Your task to perform on an android device: What's the US dollar exchange rate against the Euro? Image 0: 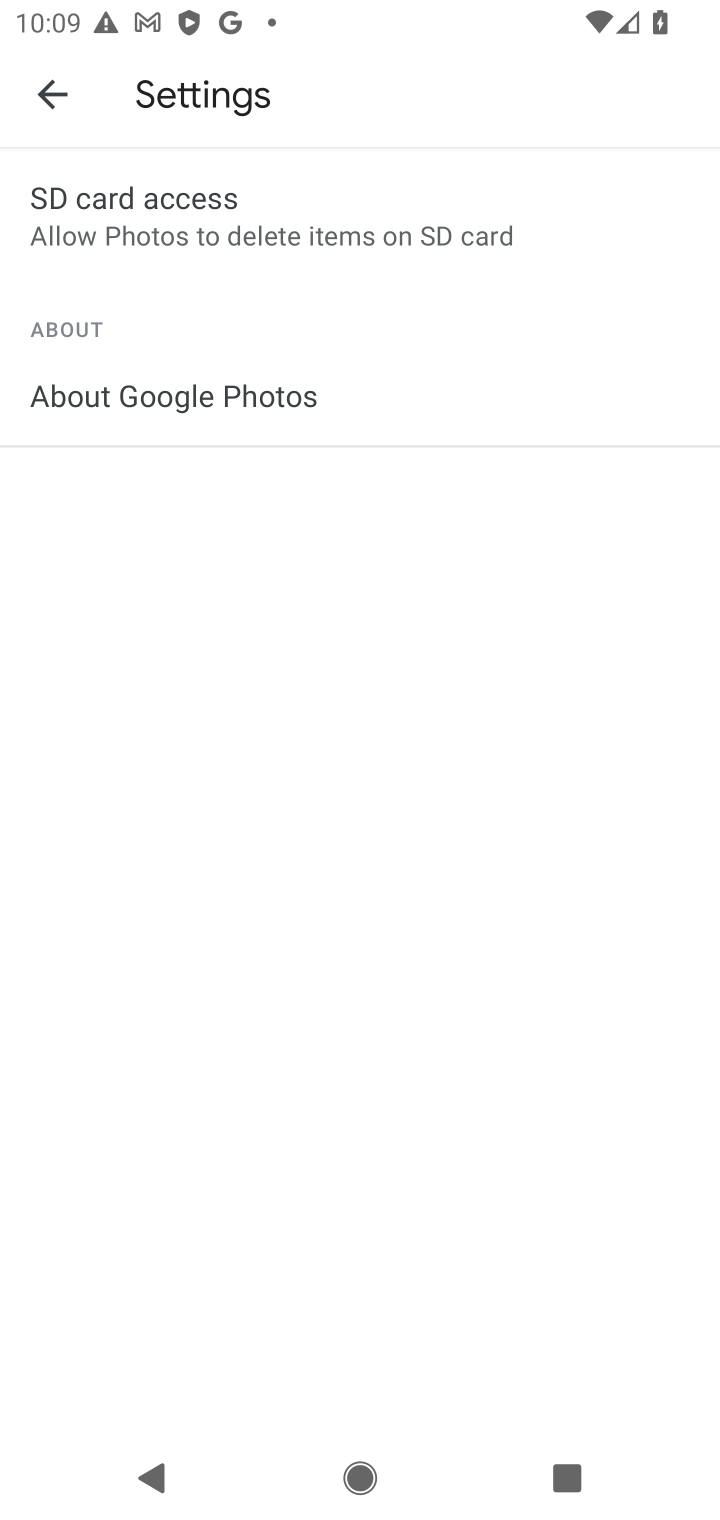
Step 0: press home button
Your task to perform on an android device: What's the US dollar exchange rate against the Euro? Image 1: 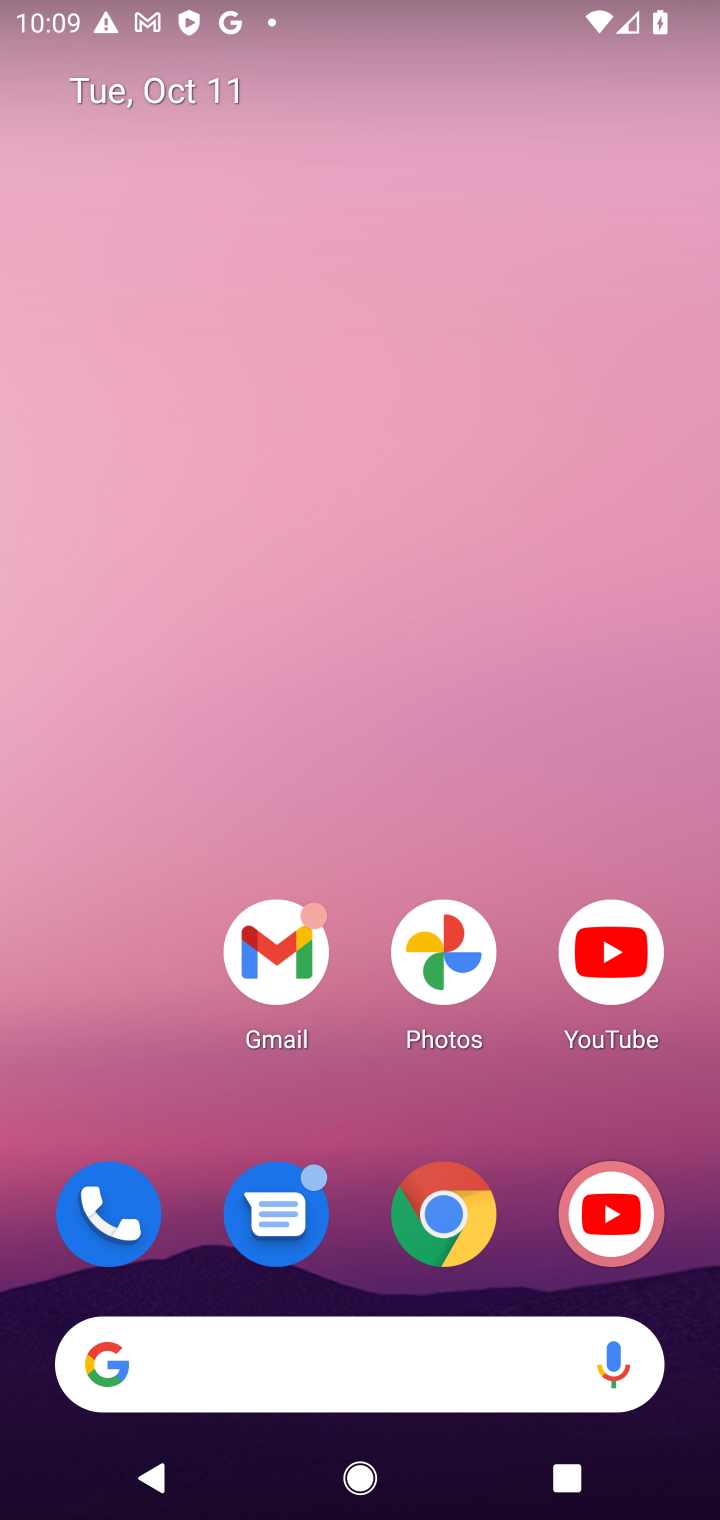
Step 1: drag from (407, 174) to (420, 88)
Your task to perform on an android device: What's the US dollar exchange rate against the Euro? Image 2: 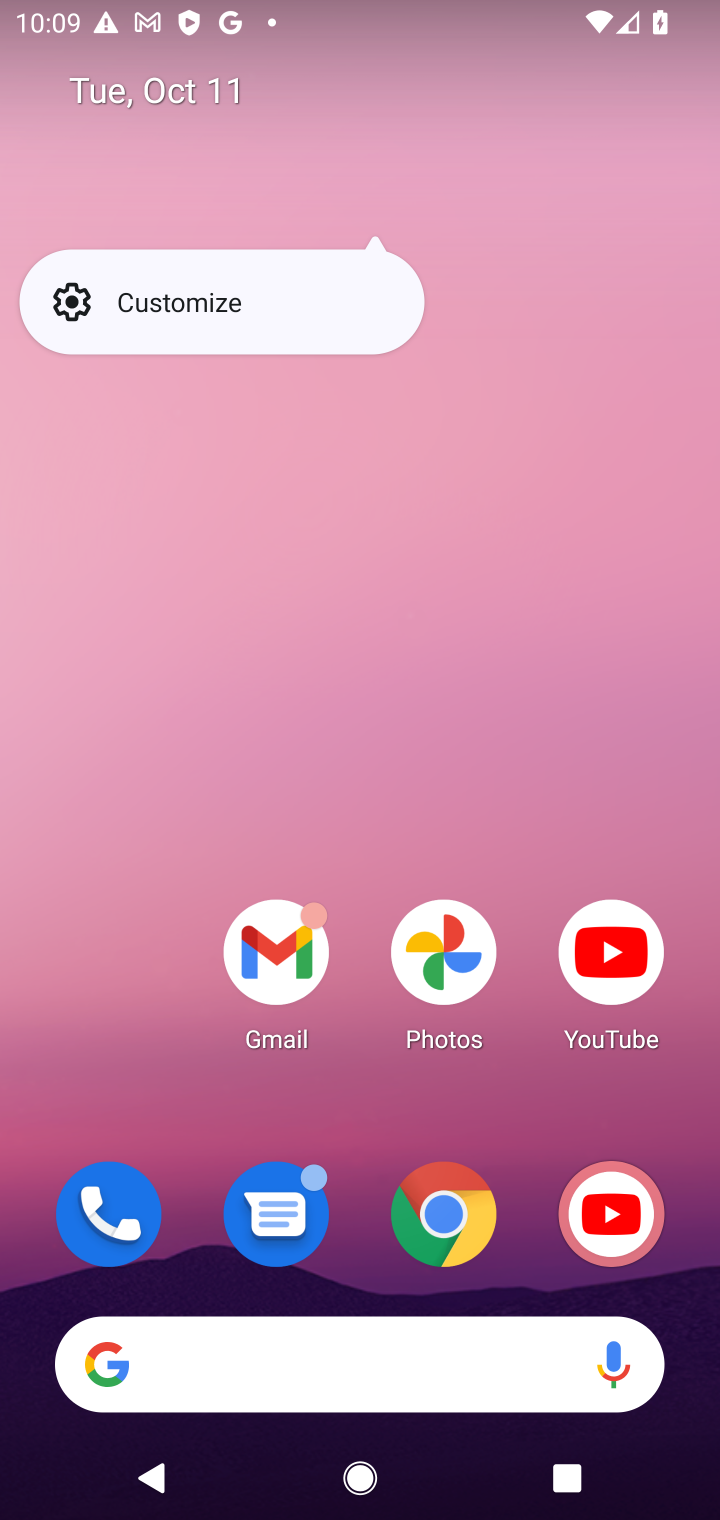
Step 2: click (482, 646)
Your task to perform on an android device: What's the US dollar exchange rate against the Euro? Image 3: 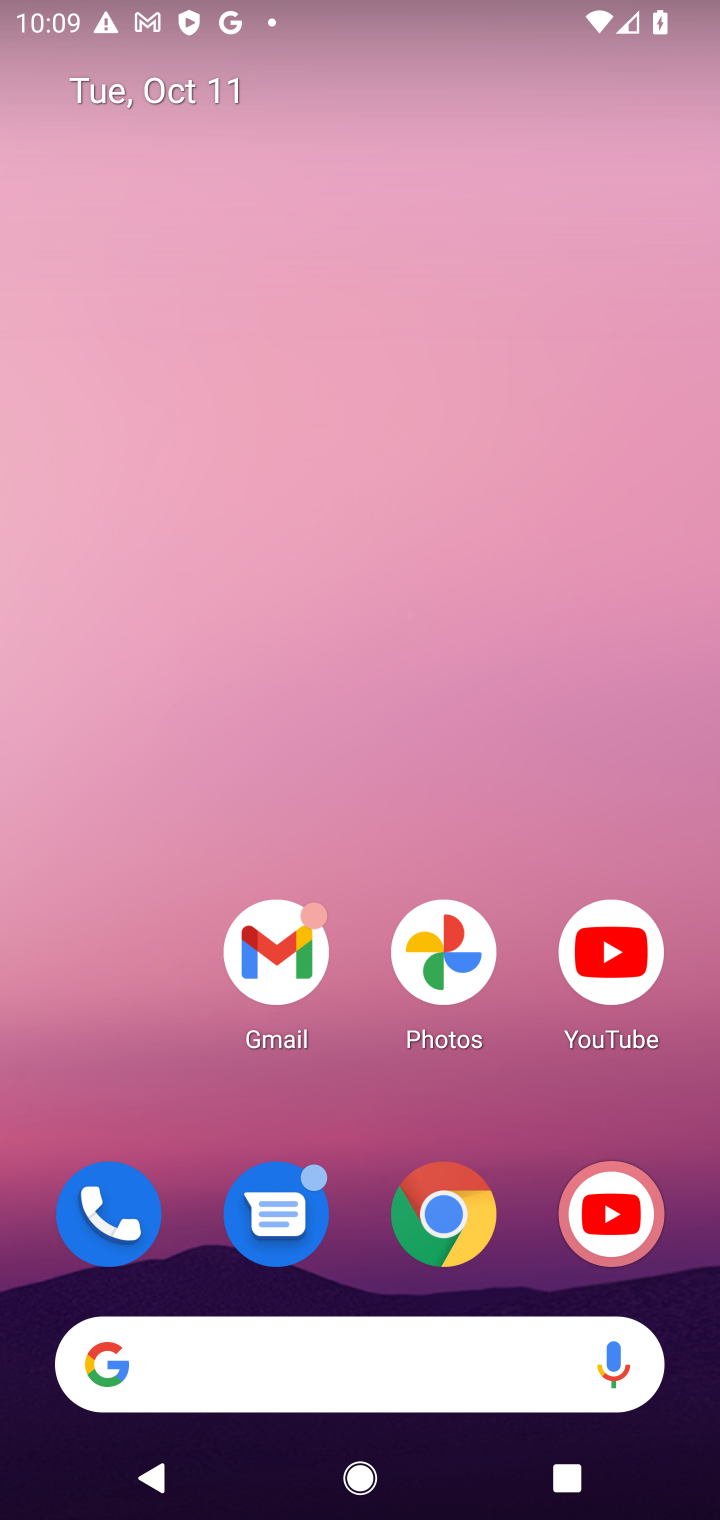
Step 3: drag from (345, 824) to (379, 172)
Your task to perform on an android device: What's the US dollar exchange rate against the Euro? Image 4: 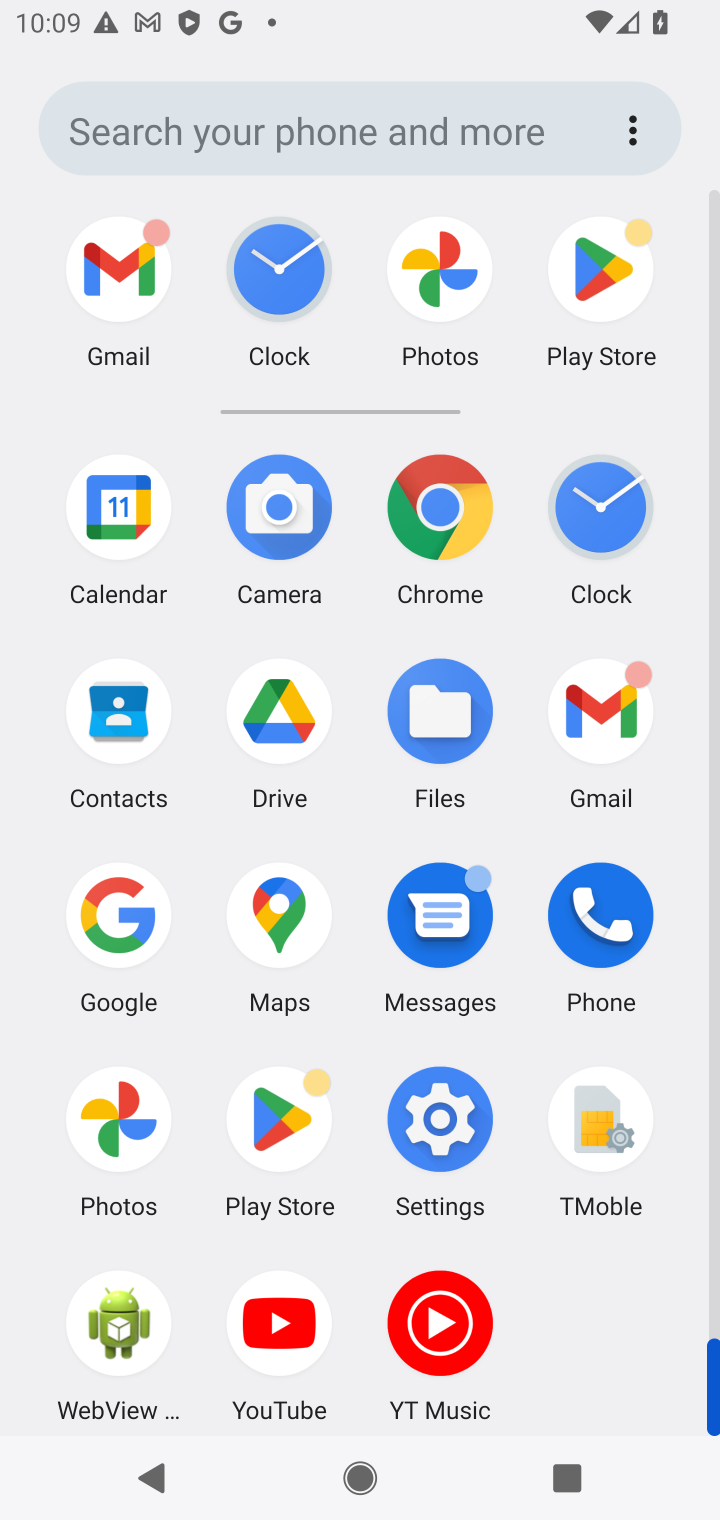
Step 4: click (436, 500)
Your task to perform on an android device: What's the US dollar exchange rate against the Euro? Image 5: 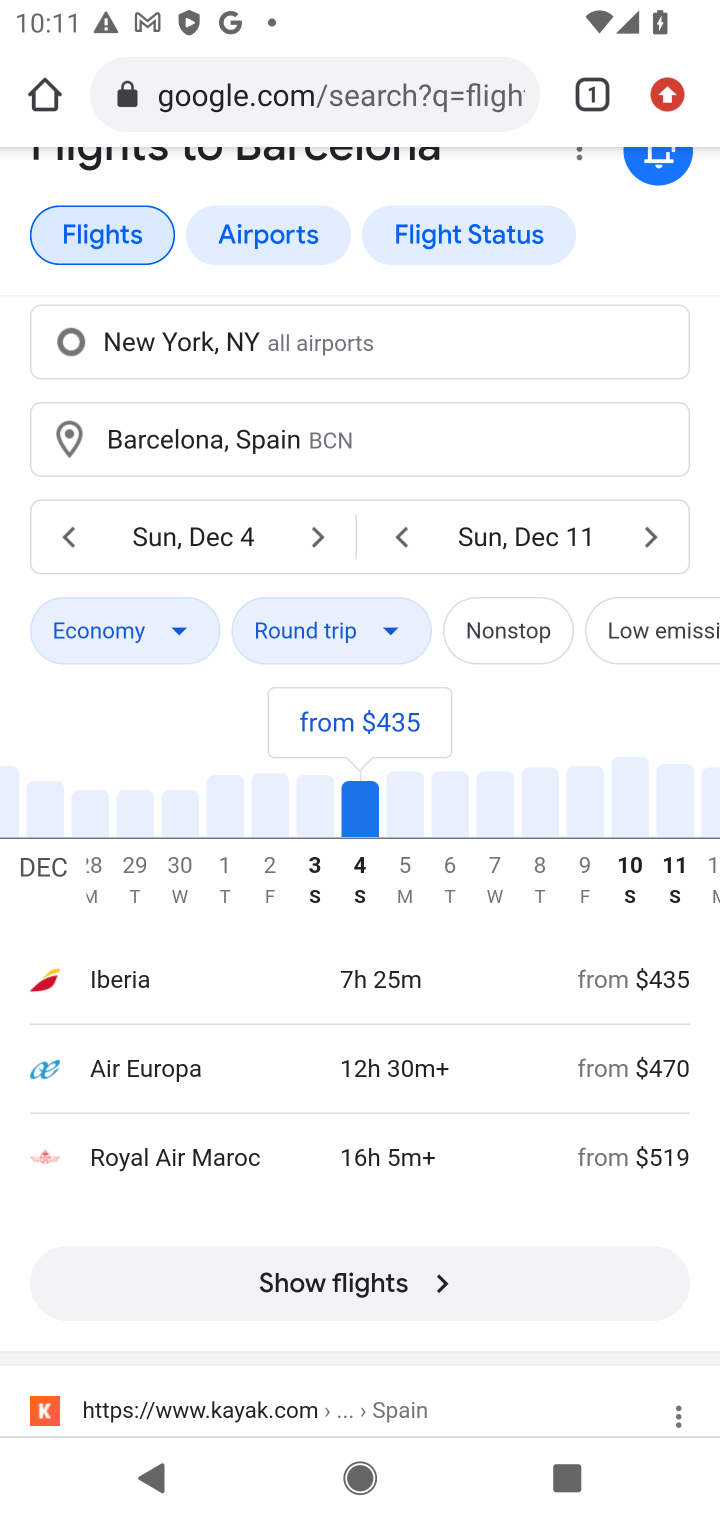
Step 5: click (400, 65)
Your task to perform on an android device: What's the US dollar exchange rate against the Euro? Image 6: 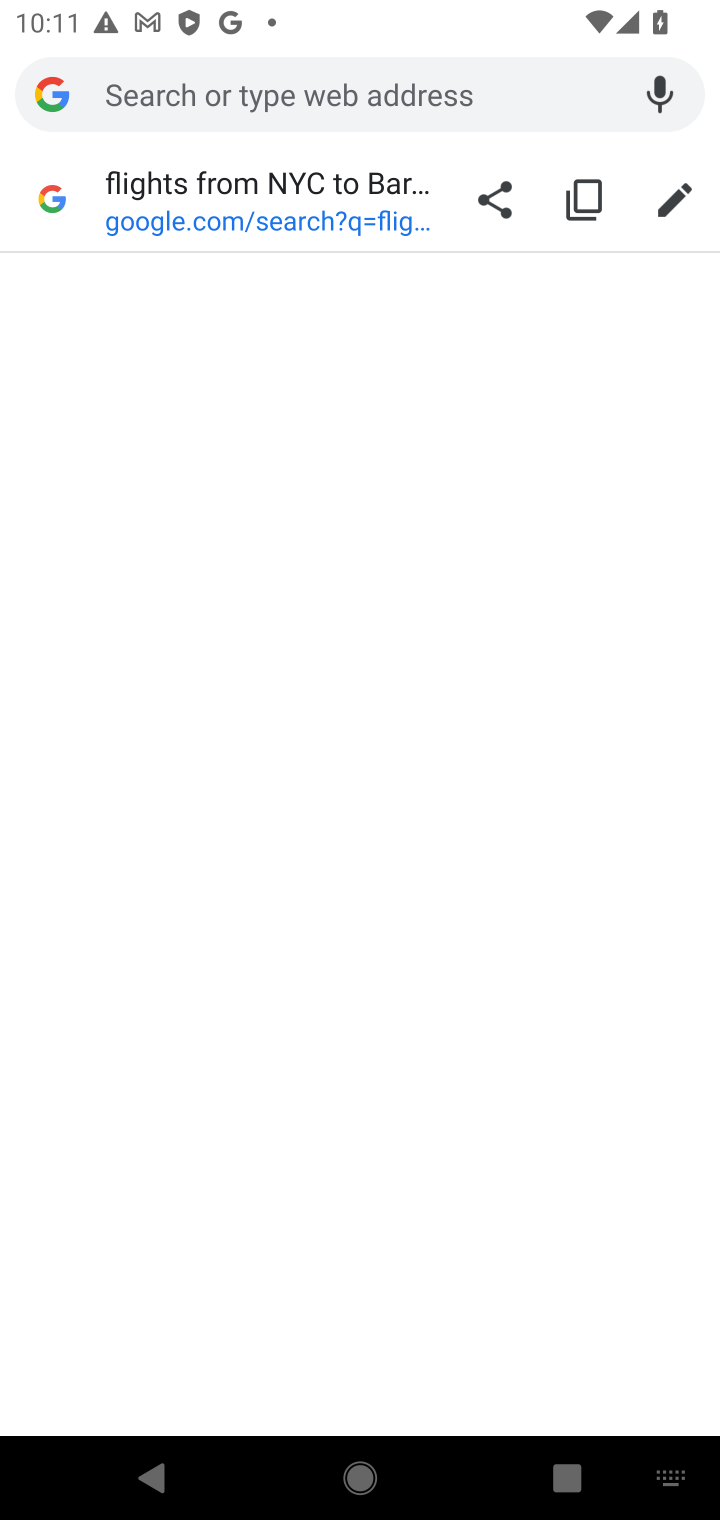
Step 6: type "What's the US dollar exchange rate against the Euro?"
Your task to perform on an android device: What's the US dollar exchange rate against the Euro? Image 7: 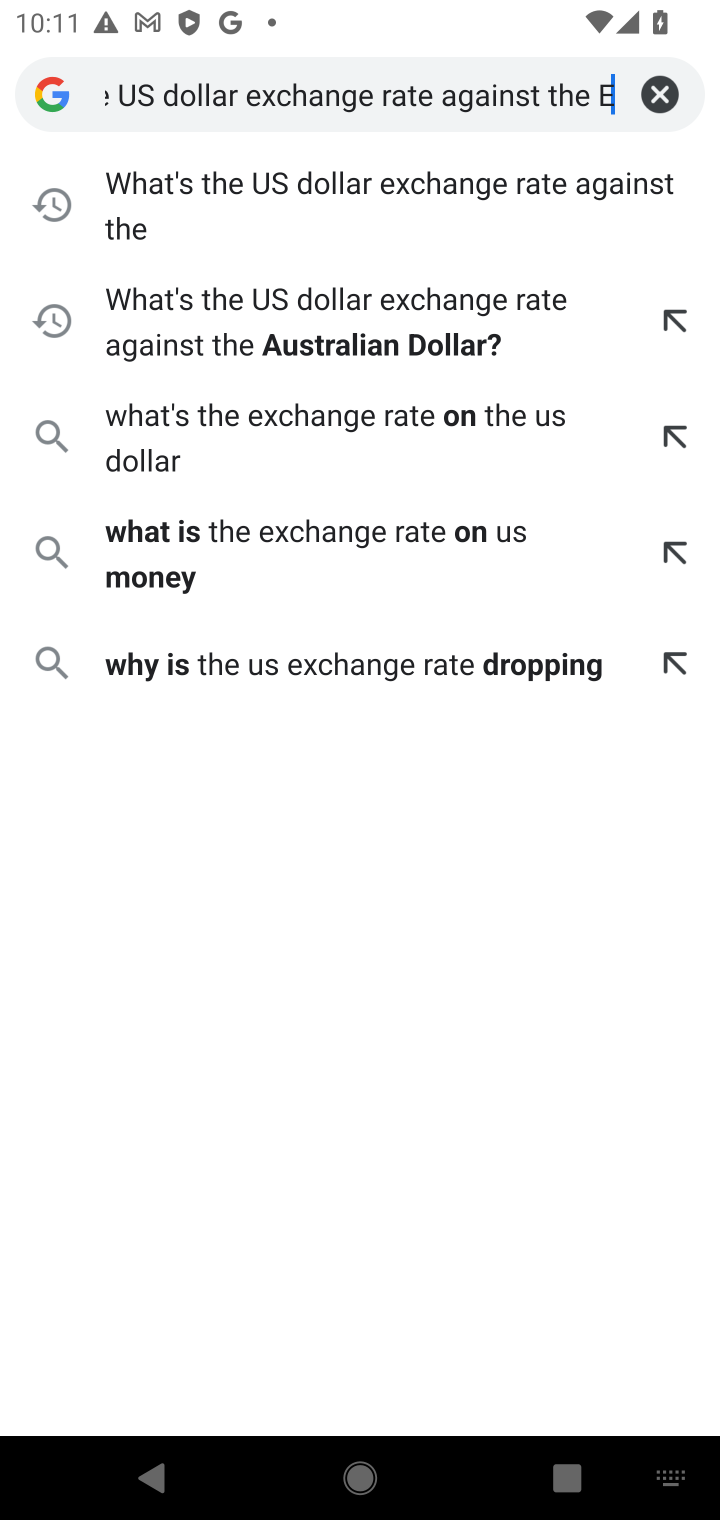
Step 7: press enter
Your task to perform on an android device: What's the US dollar exchange rate against the Euro? Image 8: 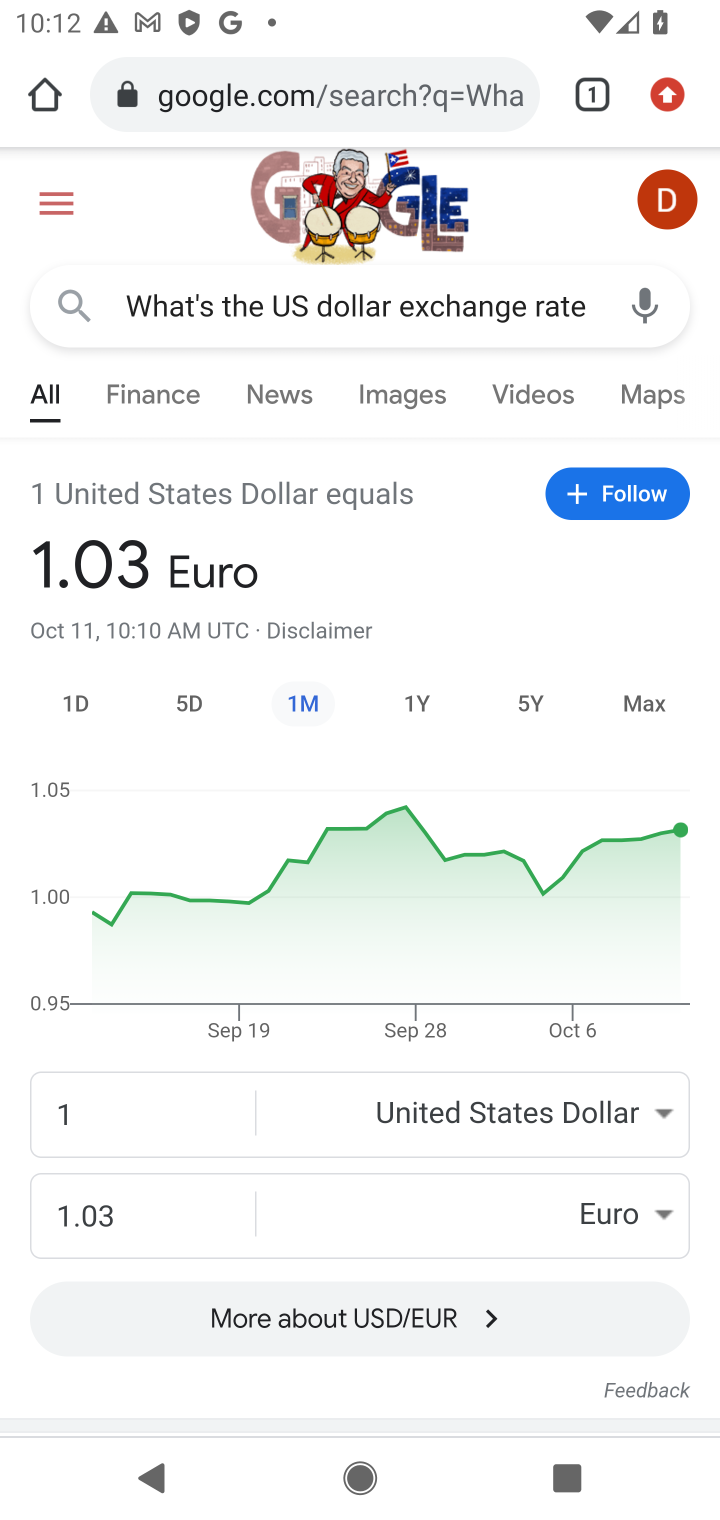
Step 8: click (590, 313)
Your task to perform on an android device: What's the US dollar exchange rate against the Euro? Image 9: 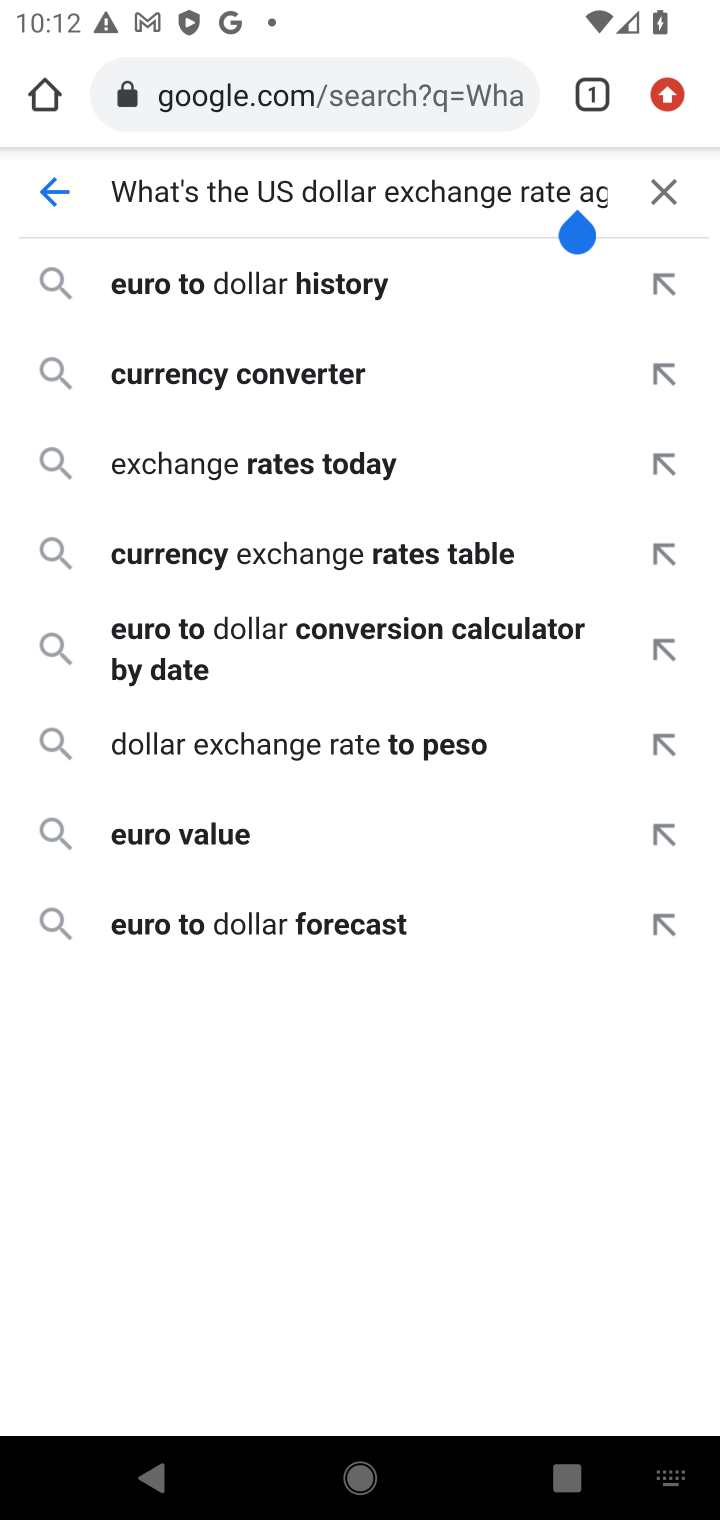
Step 9: drag from (581, 209) to (705, 279)
Your task to perform on an android device: What's the US dollar exchange rate against the Euro? Image 10: 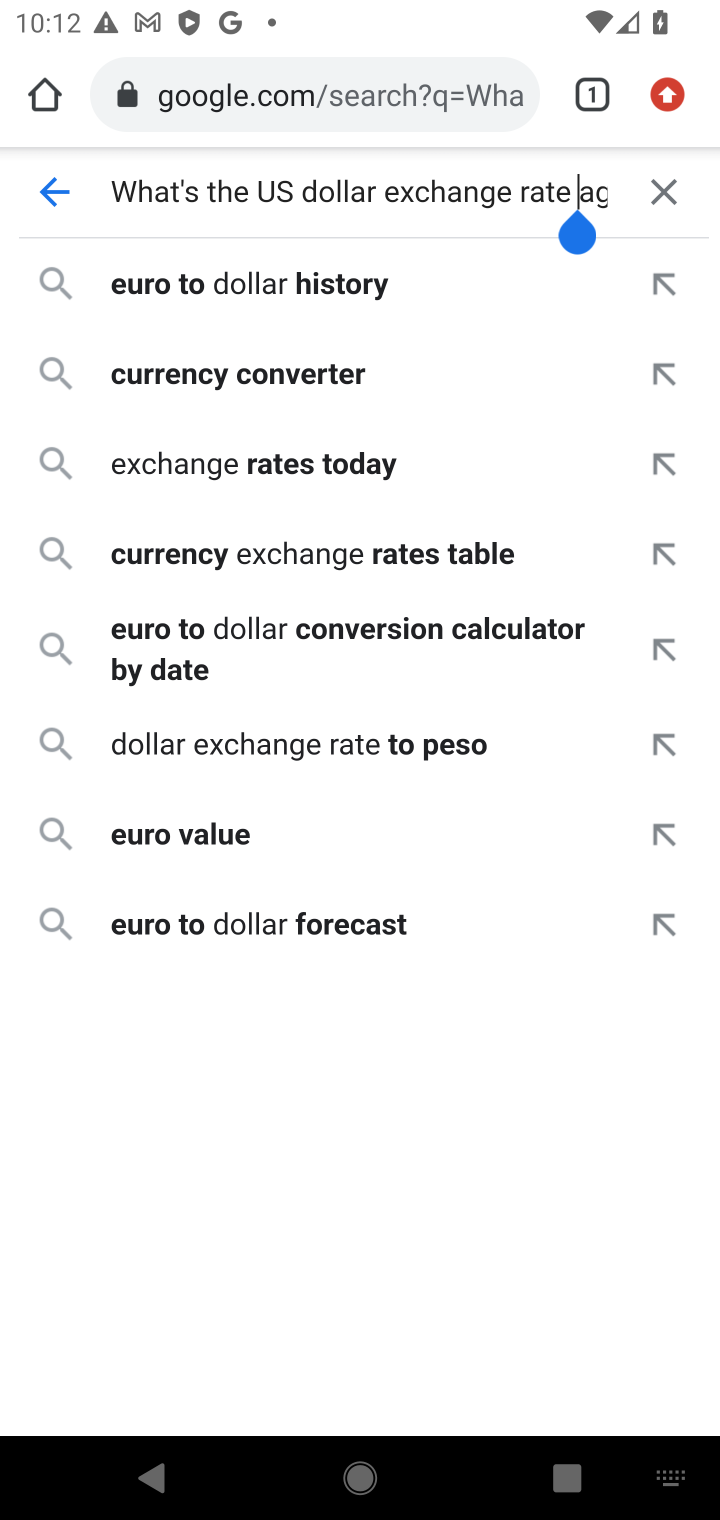
Step 10: drag from (573, 225) to (679, 245)
Your task to perform on an android device: What's the US dollar exchange rate against the Euro? Image 11: 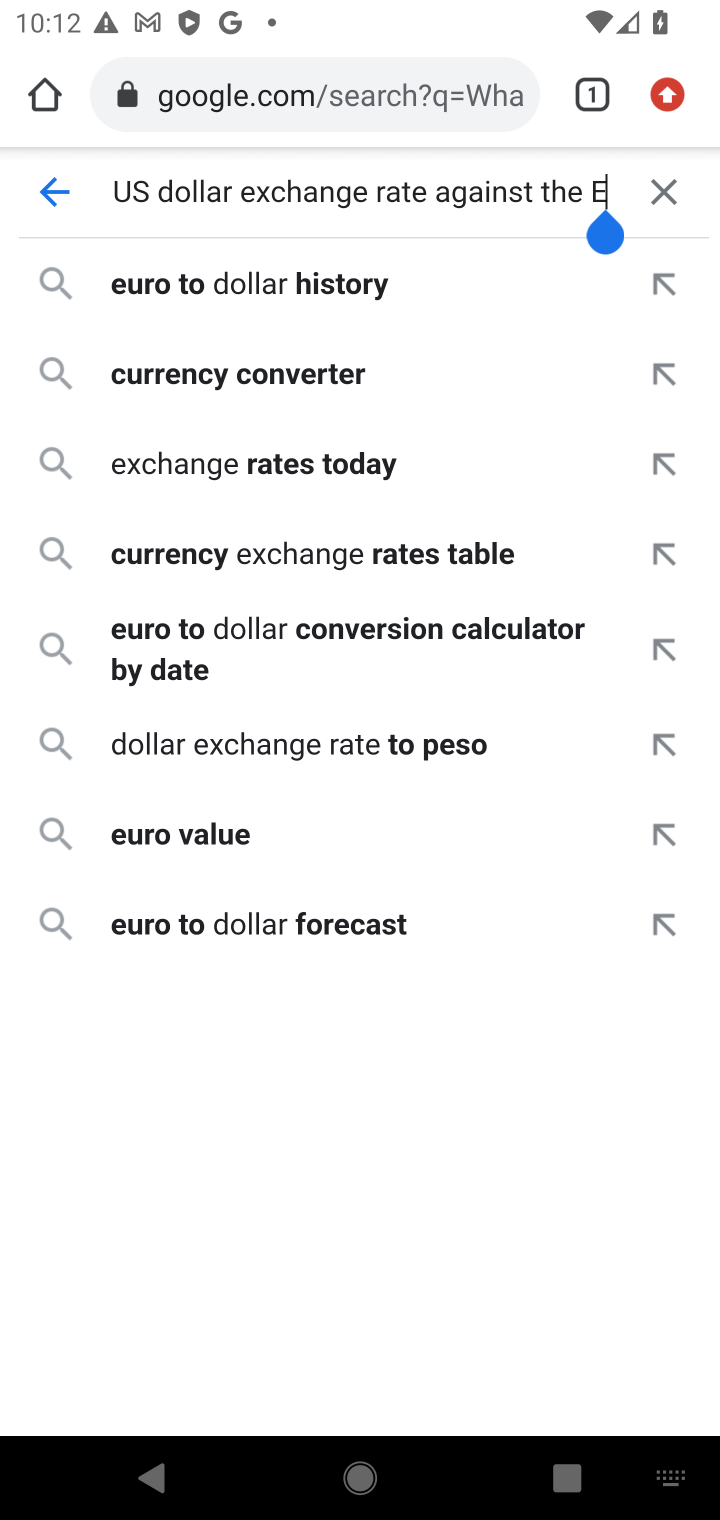
Step 11: drag from (615, 222) to (683, 238)
Your task to perform on an android device: What's the US dollar exchange rate against the Euro? Image 12: 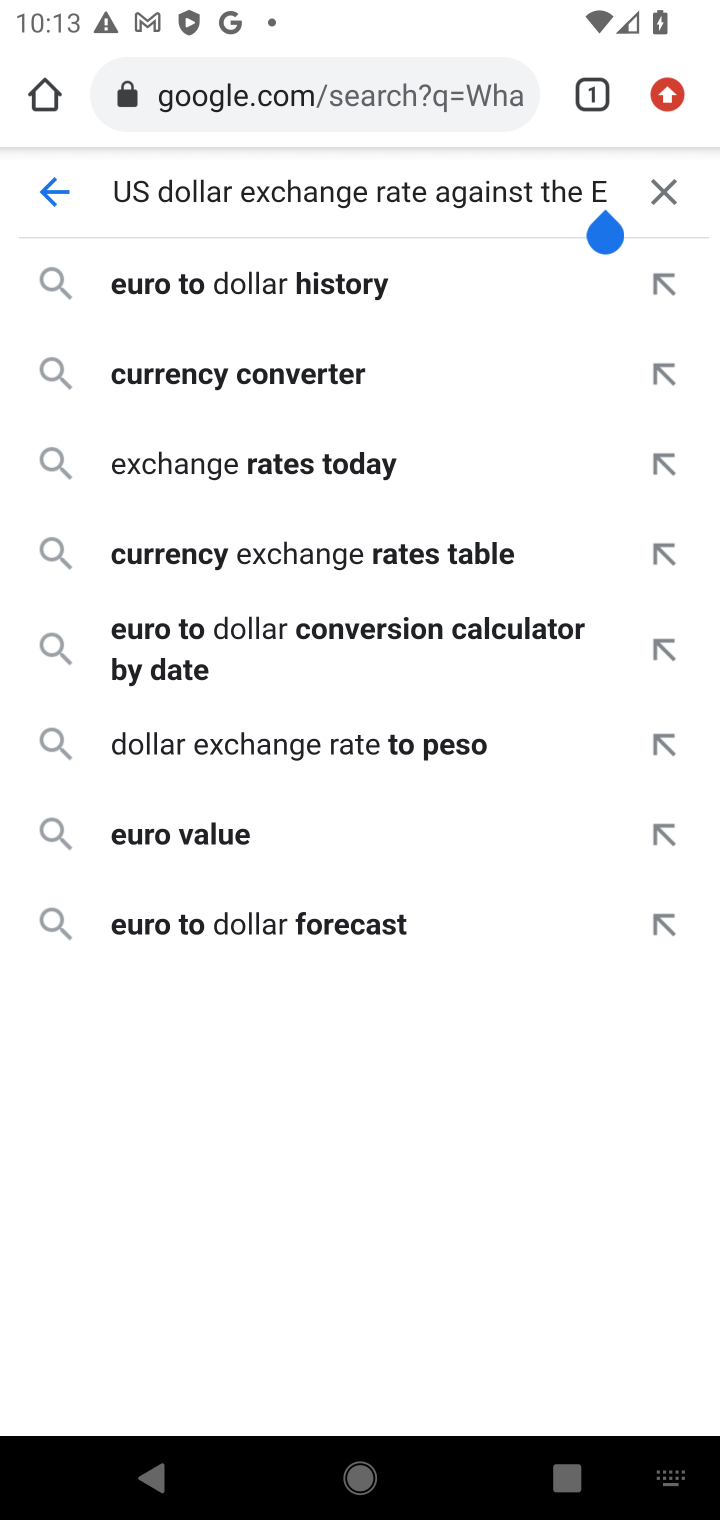
Step 12: type "uro?"
Your task to perform on an android device: What's the US dollar exchange rate against the Euro? Image 13: 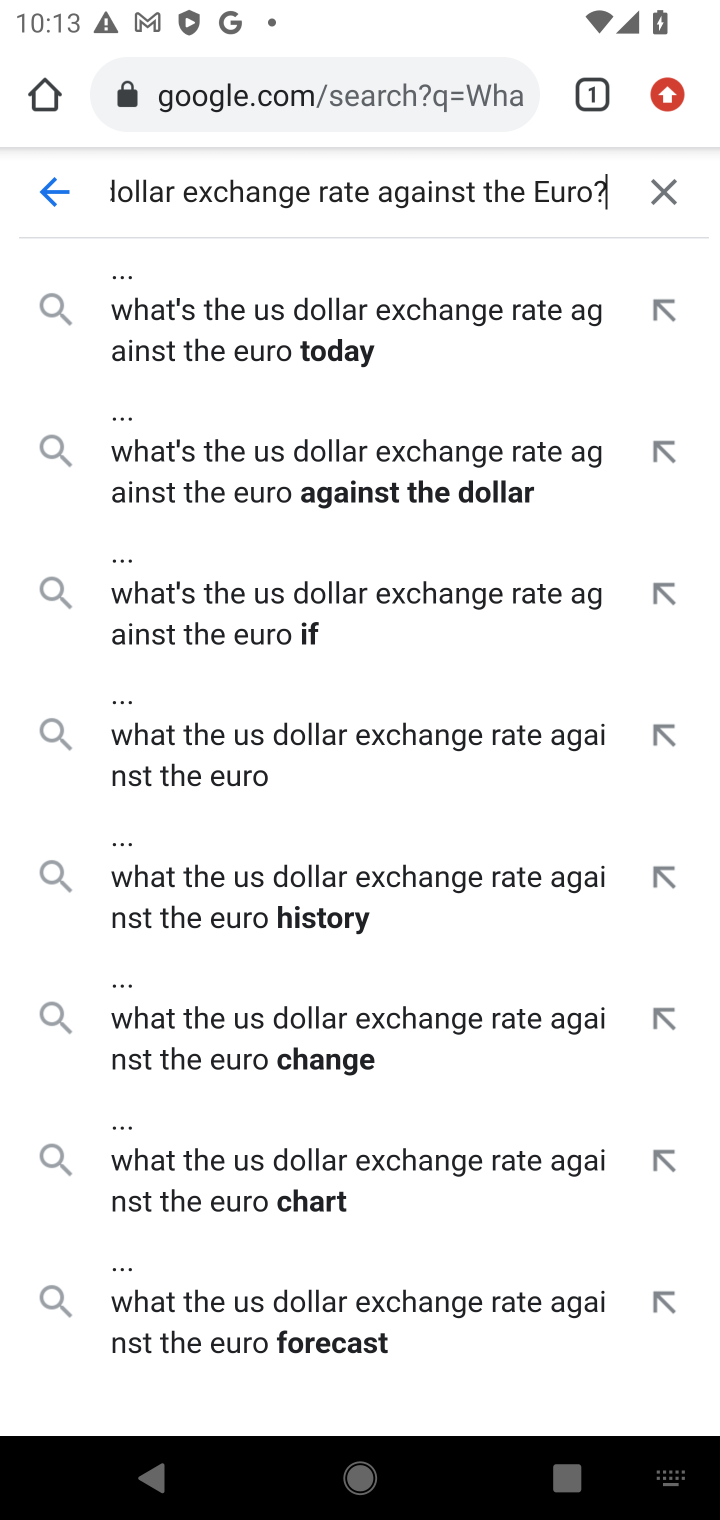
Step 13: press enter
Your task to perform on an android device: What's the US dollar exchange rate against the Euro? Image 14: 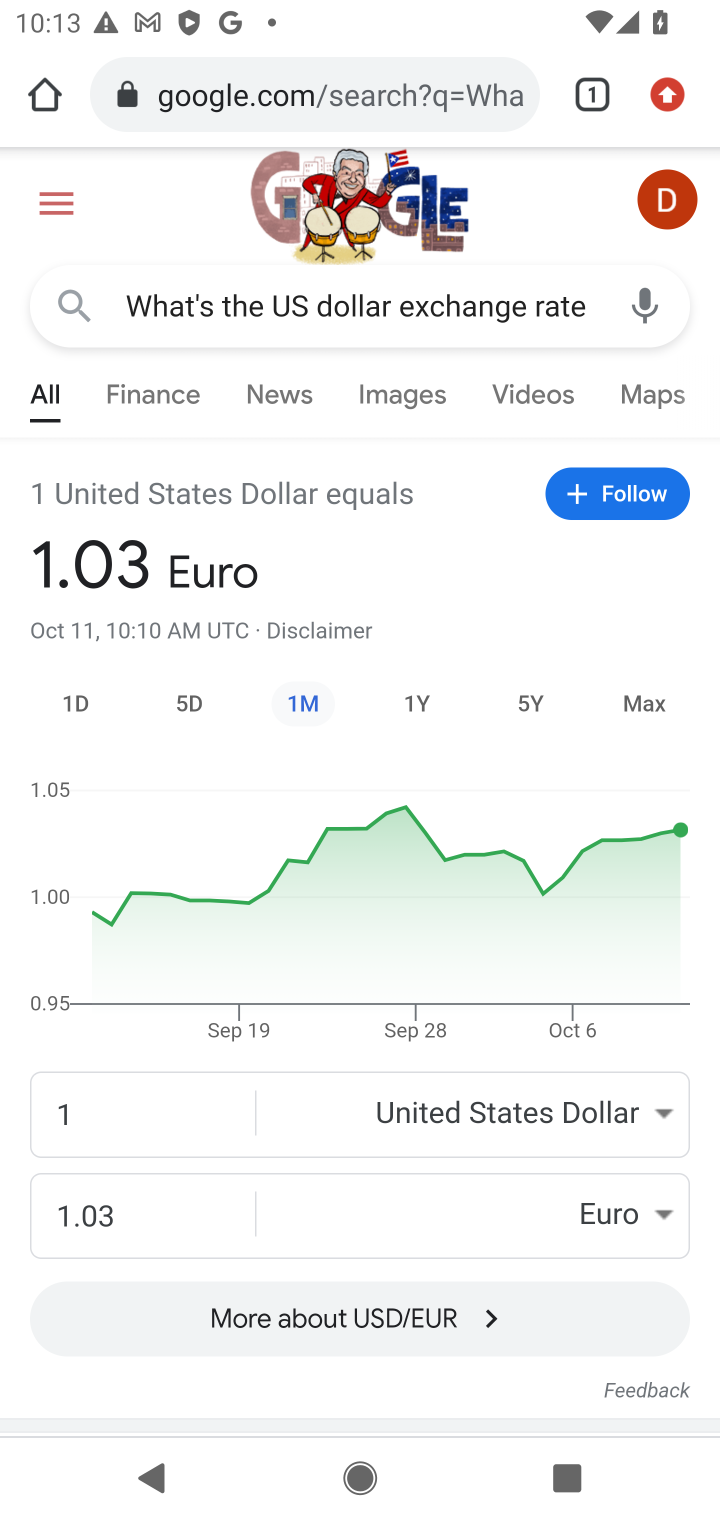
Step 14: task complete